Your task to perform on an android device: Open notification settings Image 0: 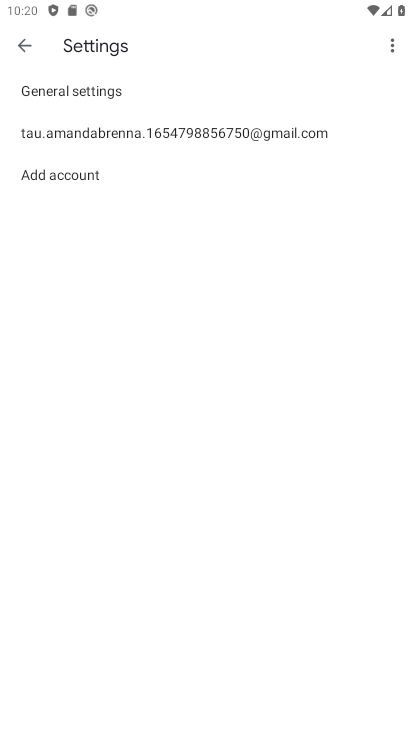
Step 0: press home button
Your task to perform on an android device: Open notification settings Image 1: 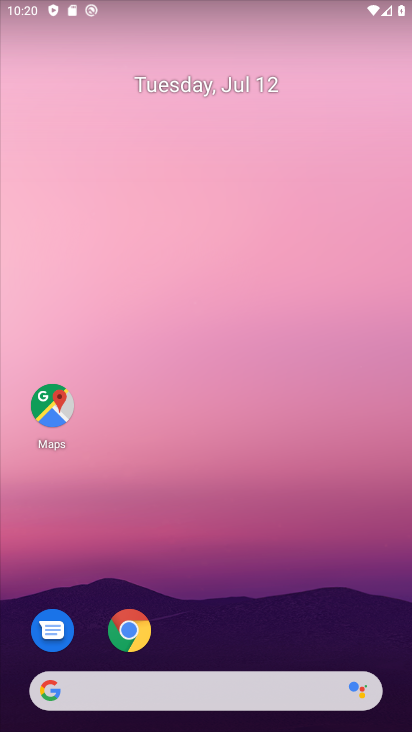
Step 1: drag from (212, 614) to (252, 153)
Your task to perform on an android device: Open notification settings Image 2: 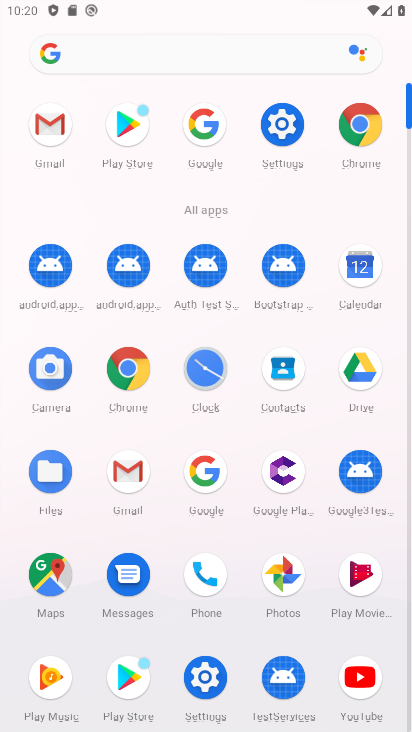
Step 2: click (283, 128)
Your task to perform on an android device: Open notification settings Image 3: 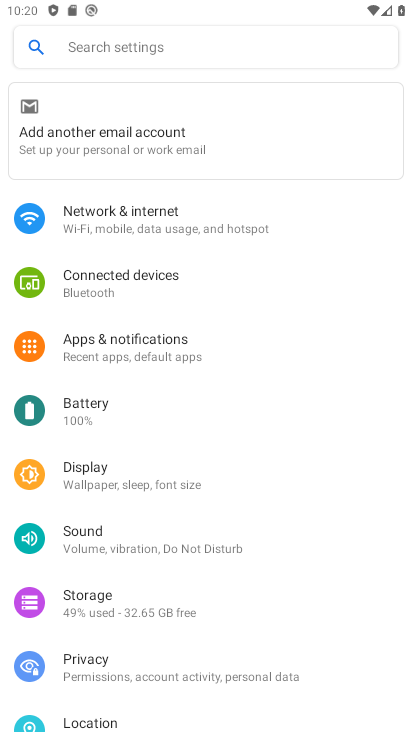
Step 3: click (137, 352)
Your task to perform on an android device: Open notification settings Image 4: 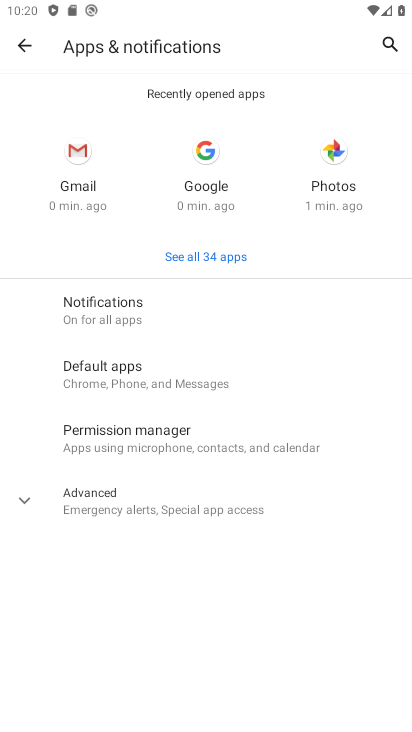
Step 4: click (141, 314)
Your task to perform on an android device: Open notification settings Image 5: 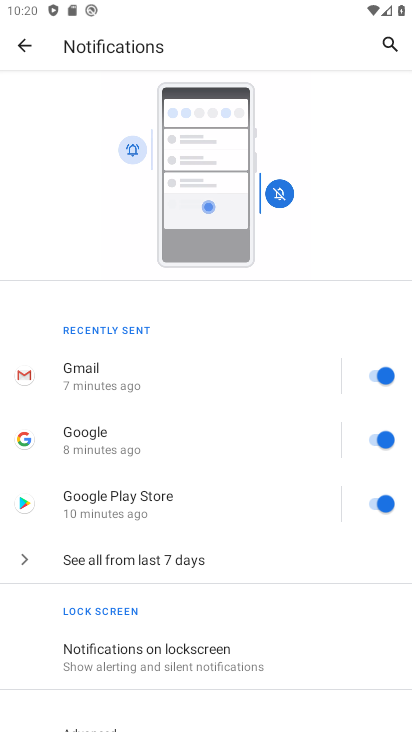
Step 5: task complete